Your task to perform on an android device: What's the weather? Image 0: 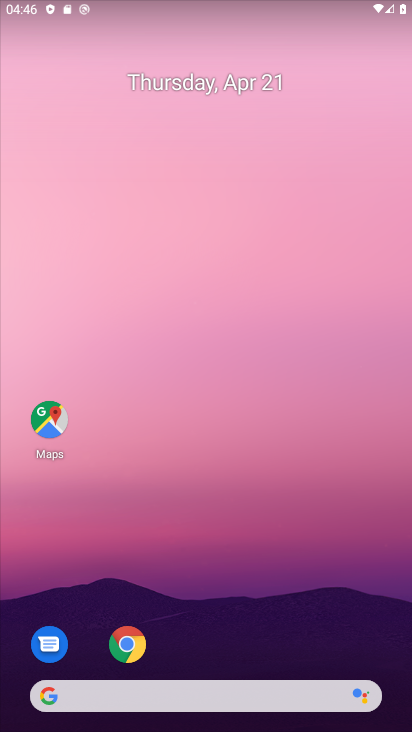
Step 0: drag from (280, 617) to (262, 172)
Your task to perform on an android device: What's the weather? Image 1: 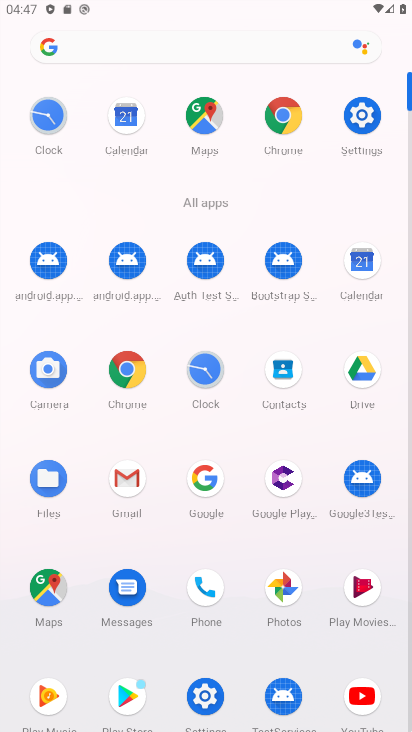
Step 1: click (134, 373)
Your task to perform on an android device: What's the weather? Image 2: 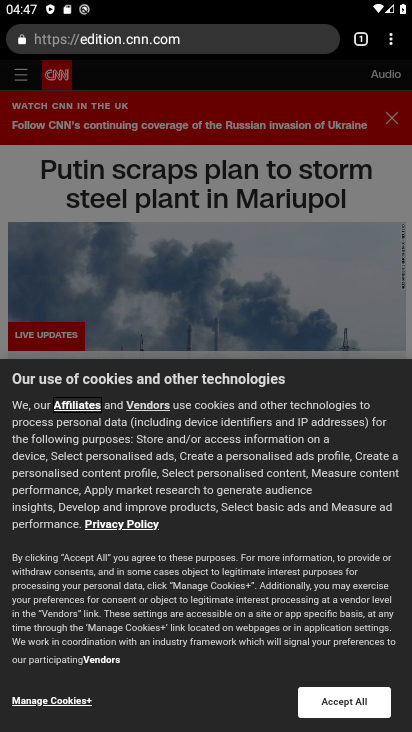
Step 2: click (228, 36)
Your task to perform on an android device: What's the weather? Image 3: 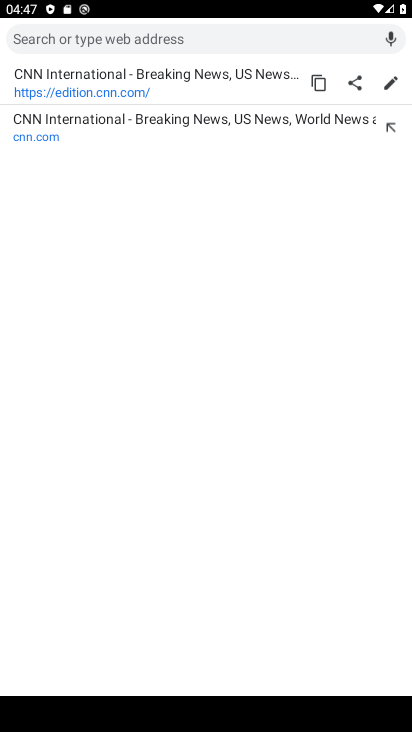
Step 3: type "weather"
Your task to perform on an android device: What's the weather? Image 4: 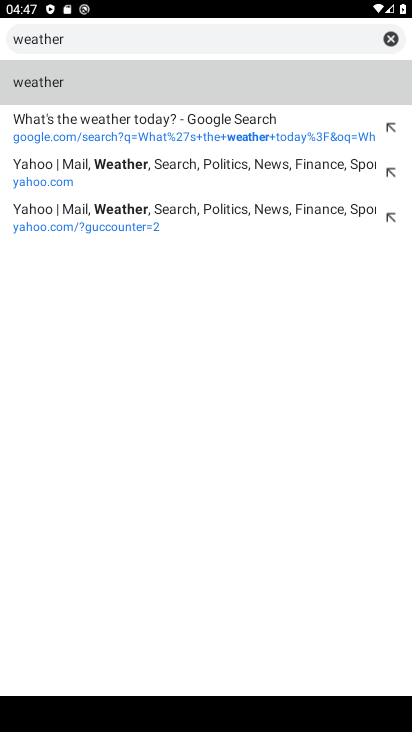
Step 4: press enter
Your task to perform on an android device: What's the weather? Image 5: 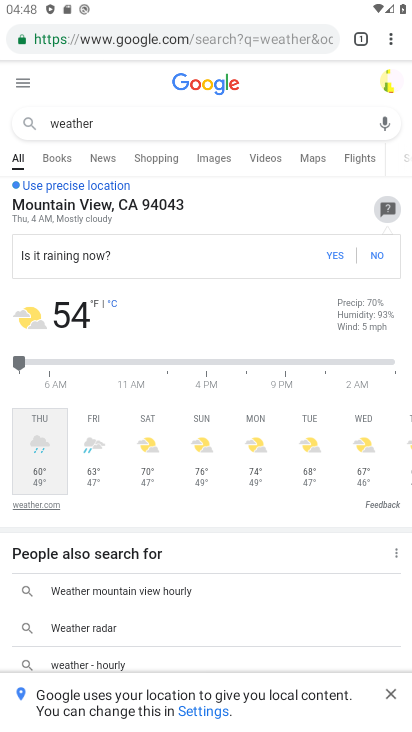
Step 5: task complete